Your task to perform on an android device: turn on notifications settings in the gmail app Image 0: 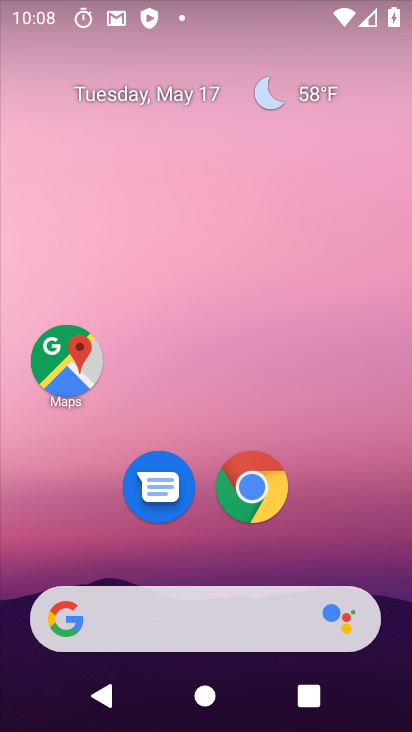
Step 0: drag from (242, 725) to (249, 84)
Your task to perform on an android device: turn on notifications settings in the gmail app Image 1: 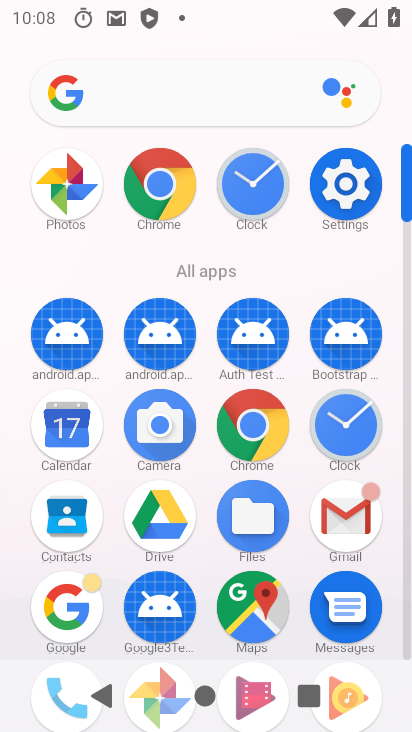
Step 1: click (351, 512)
Your task to perform on an android device: turn on notifications settings in the gmail app Image 2: 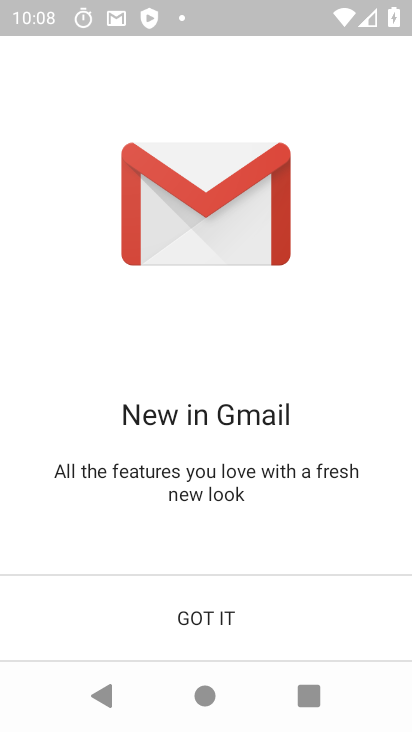
Step 2: click (199, 616)
Your task to perform on an android device: turn on notifications settings in the gmail app Image 3: 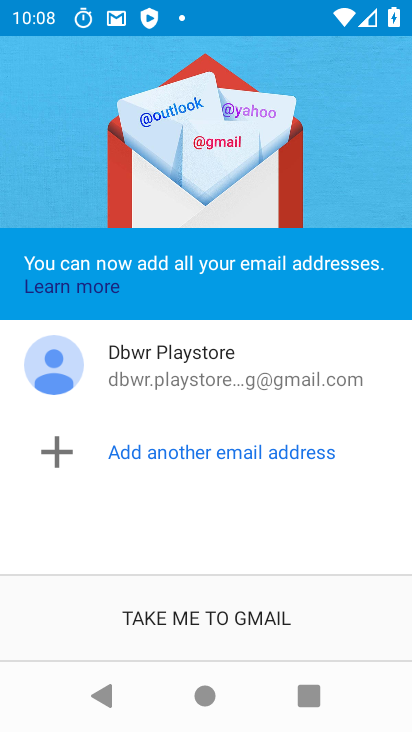
Step 3: click (199, 616)
Your task to perform on an android device: turn on notifications settings in the gmail app Image 4: 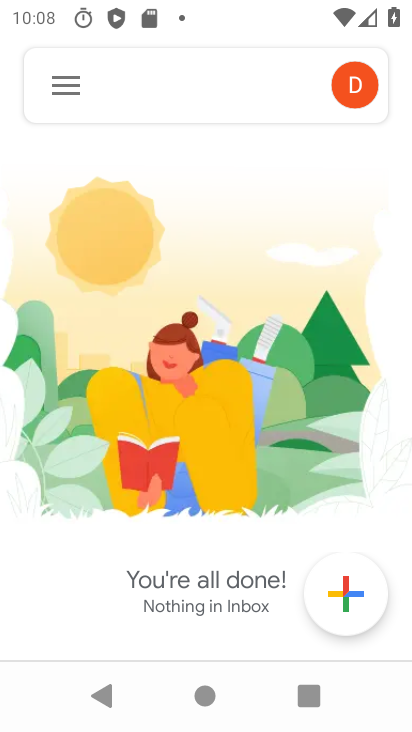
Step 4: click (57, 86)
Your task to perform on an android device: turn on notifications settings in the gmail app Image 5: 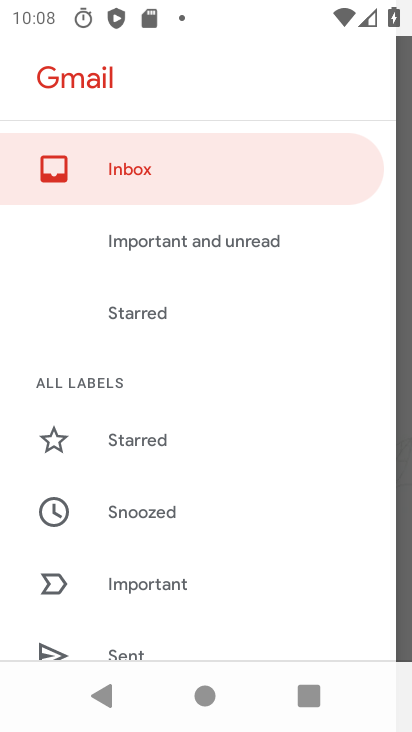
Step 5: drag from (158, 628) to (157, 210)
Your task to perform on an android device: turn on notifications settings in the gmail app Image 6: 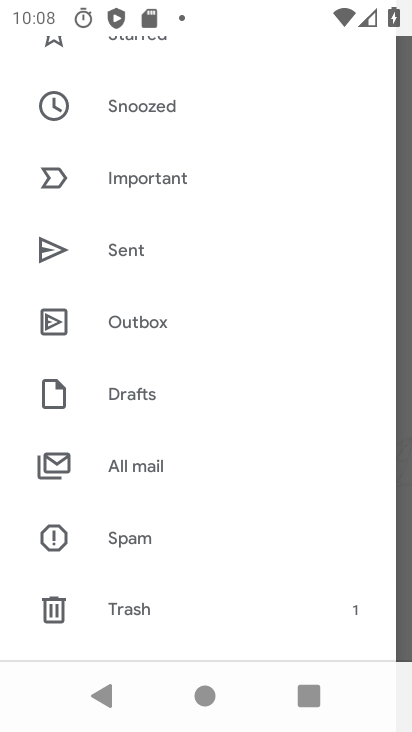
Step 6: drag from (142, 620) to (142, 250)
Your task to perform on an android device: turn on notifications settings in the gmail app Image 7: 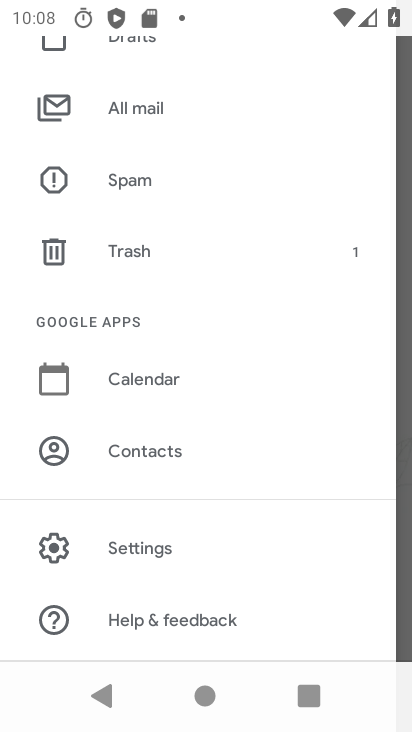
Step 7: click (137, 546)
Your task to perform on an android device: turn on notifications settings in the gmail app Image 8: 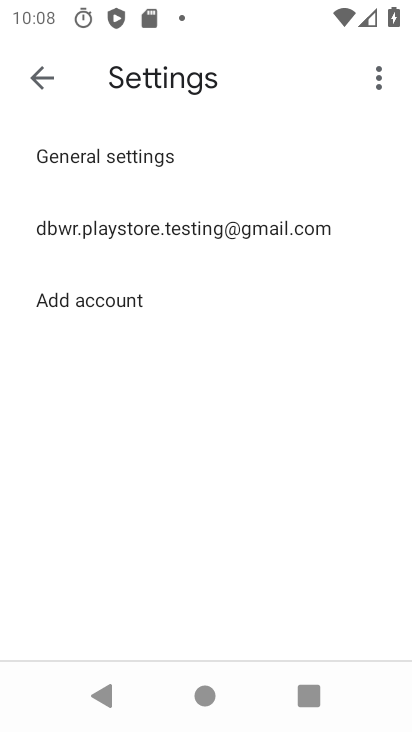
Step 8: click (133, 225)
Your task to perform on an android device: turn on notifications settings in the gmail app Image 9: 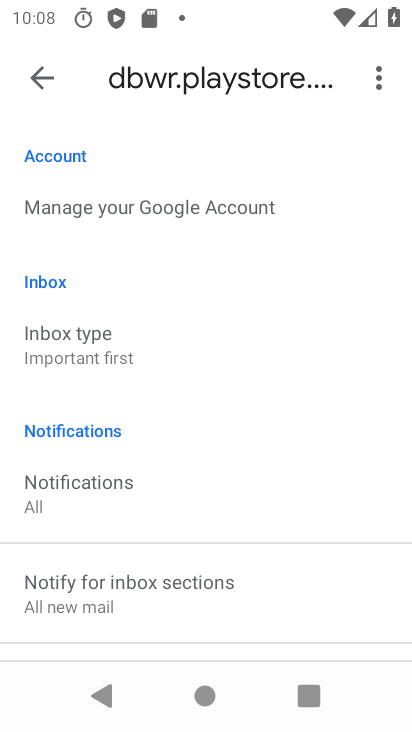
Step 9: task complete